Your task to perform on an android device: turn off improve location accuracy Image 0: 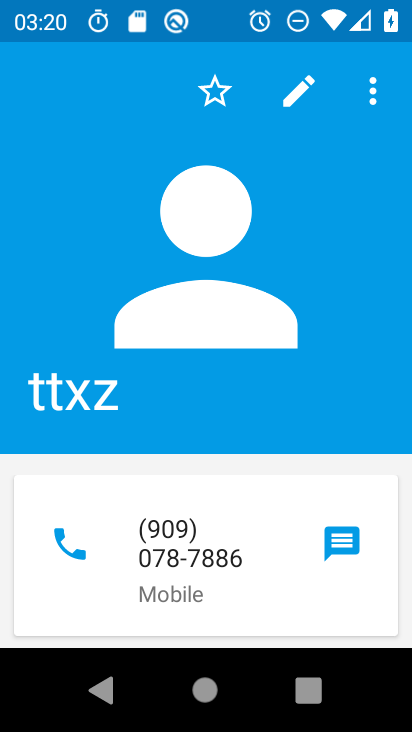
Step 0: press home button
Your task to perform on an android device: turn off improve location accuracy Image 1: 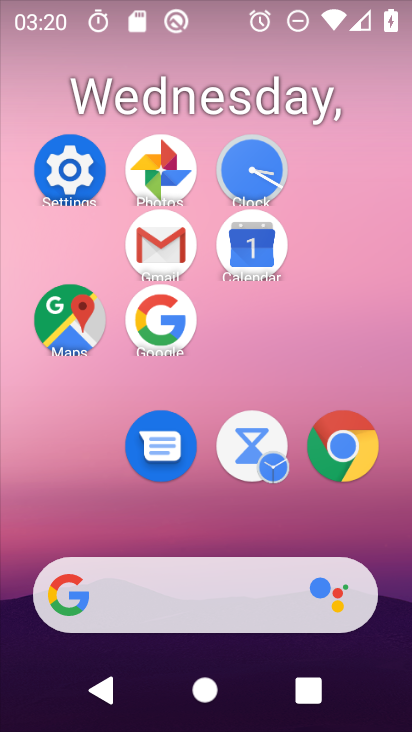
Step 1: click (88, 169)
Your task to perform on an android device: turn off improve location accuracy Image 2: 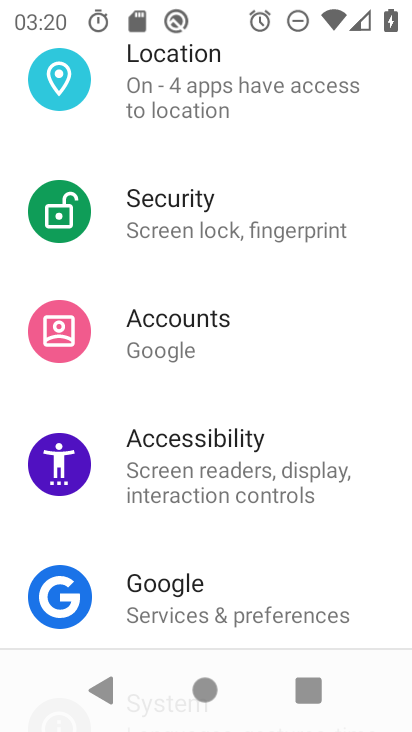
Step 2: click (207, 103)
Your task to perform on an android device: turn off improve location accuracy Image 3: 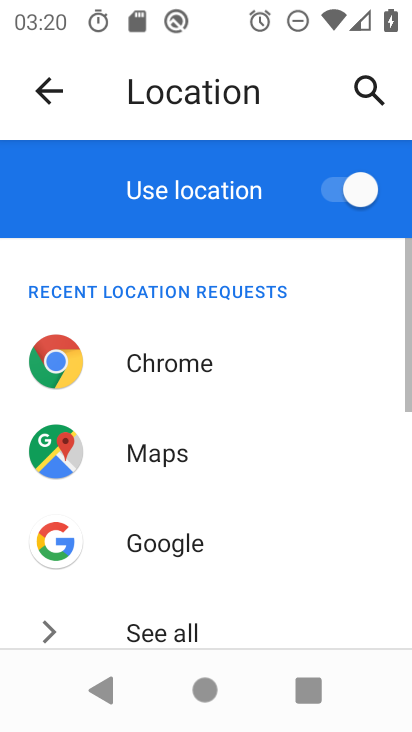
Step 3: drag from (214, 606) to (229, 62)
Your task to perform on an android device: turn off improve location accuracy Image 4: 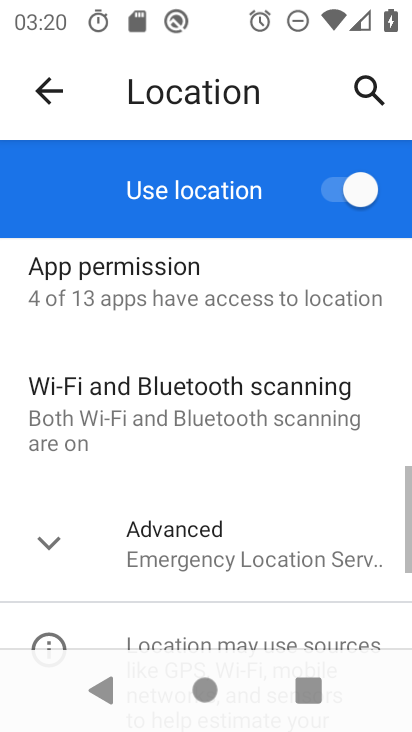
Step 4: click (223, 581)
Your task to perform on an android device: turn off improve location accuracy Image 5: 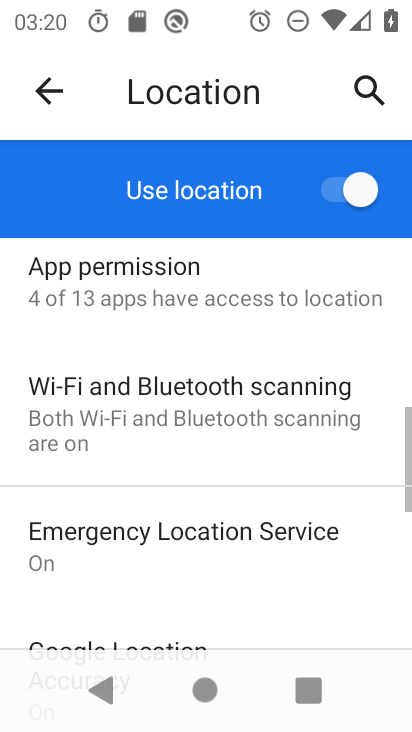
Step 5: drag from (204, 542) to (211, 120)
Your task to perform on an android device: turn off improve location accuracy Image 6: 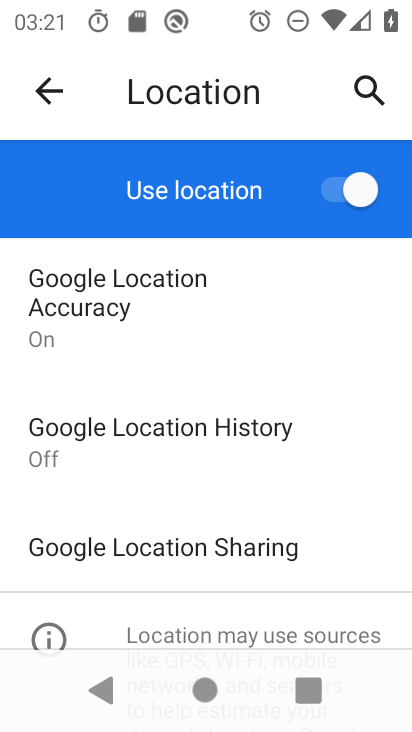
Step 6: click (178, 281)
Your task to perform on an android device: turn off improve location accuracy Image 7: 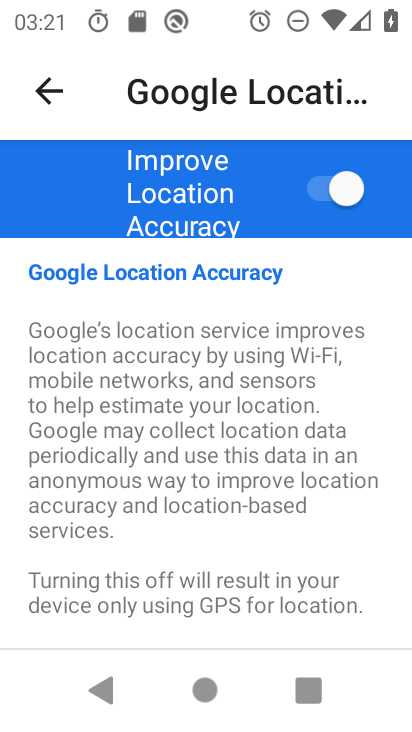
Step 7: click (369, 184)
Your task to perform on an android device: turn off improve location accuracy Image 8: 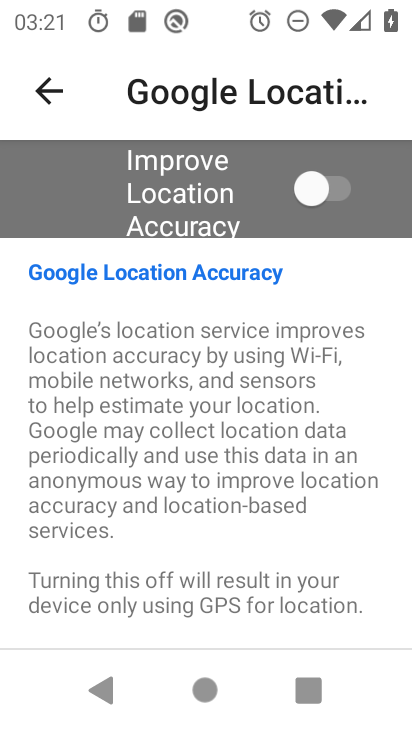
Step 8: task complete